Your task to perform on an android device: Show me recent news Image 0: 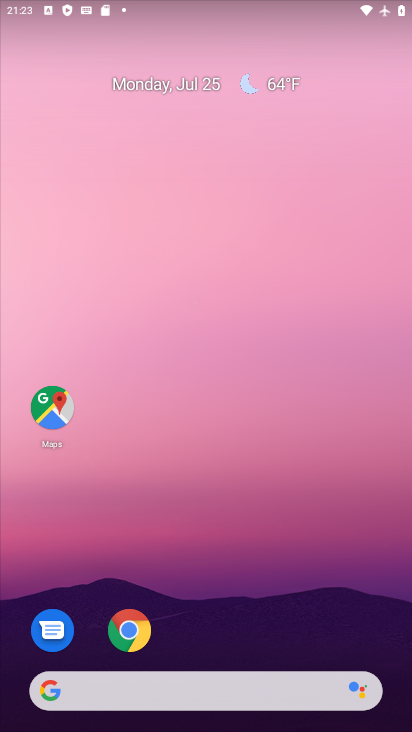
Step 0: drag from (8, 280) to (391, 273)
Your task to perform on an android device: Show me recent news Image 1: 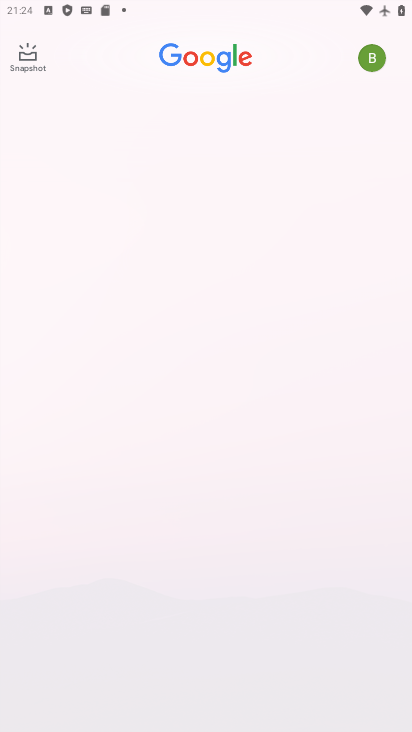
Step 1: task complete